Your task to perform on an android device: show emergency info Image 0: 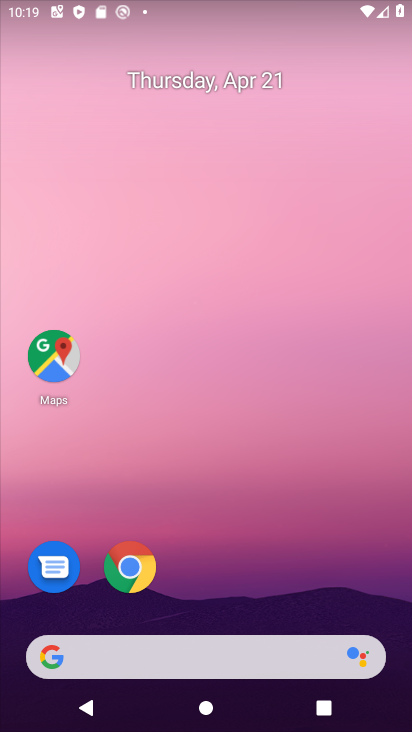
Step 0: click (262, 134)
Your task to perform on an android device: show emergency info Image 1: 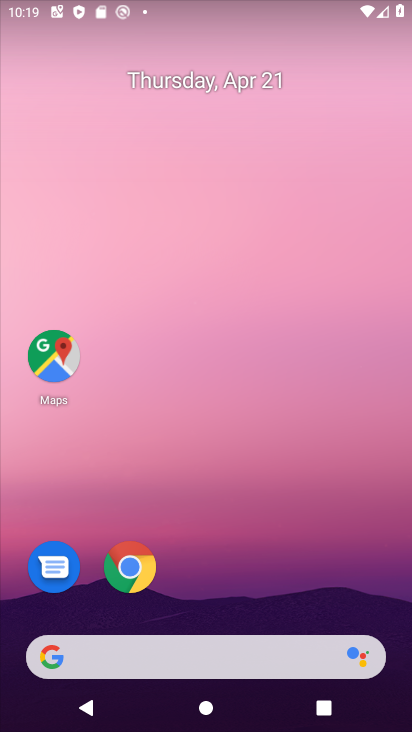
Step 1: drag from (216, 577) to (354, 93)
Your task to perform on an android device: show emergency info Image 2: 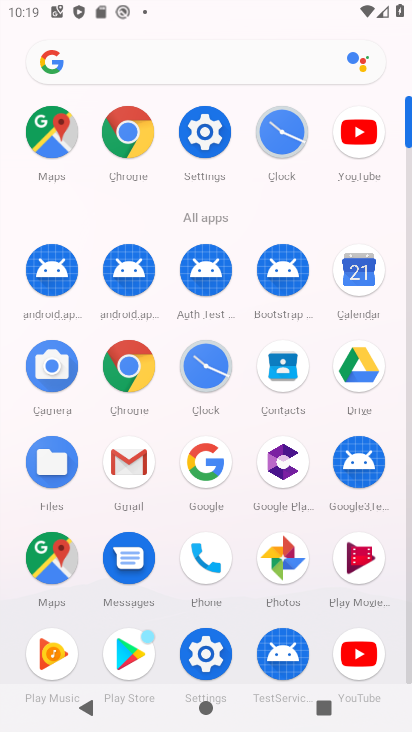
Step 2: click (200, 126)
Your task to perform on an android device: show emergency info Image 3: 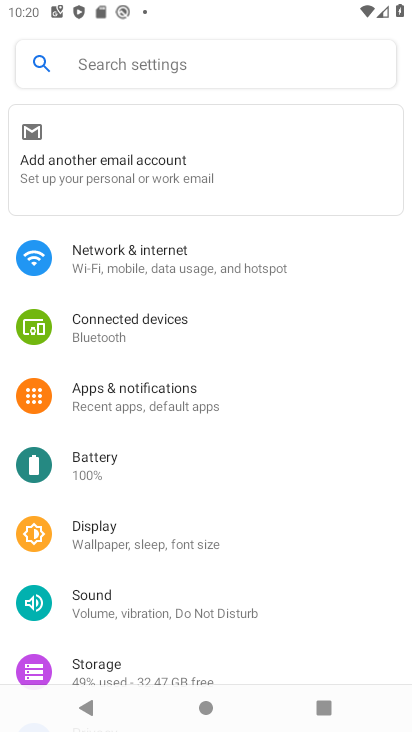
Step 3: drag from (167, 611) to (279, 94)
Your task to perform on an android device: show emergency info Image 4: 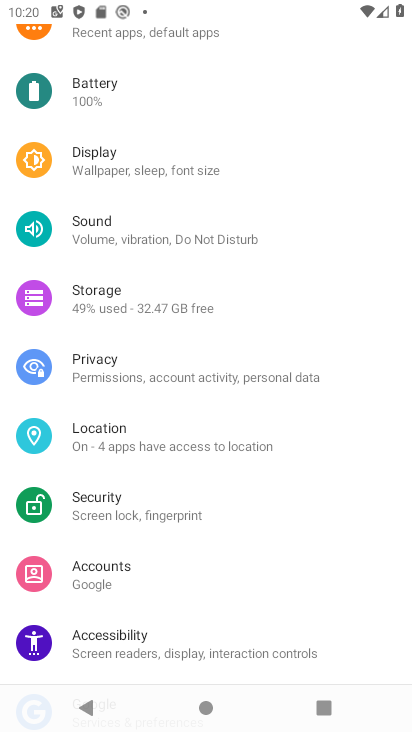
Step 4: drag from (187, 419) to (219, 226)
Your task to perform on an android device: show emergency info Image 5: 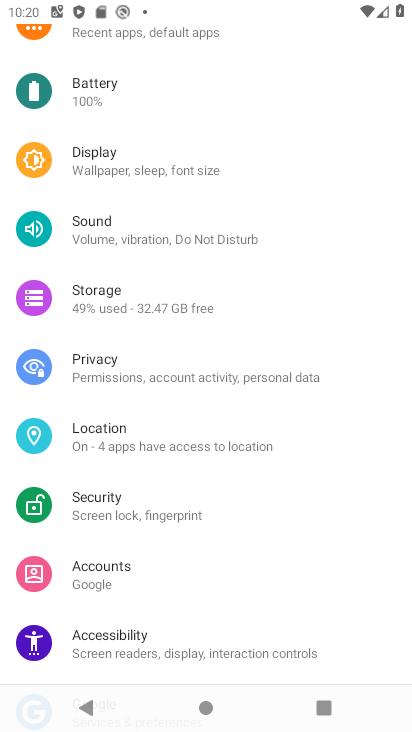
Step 5: drag from (146, 631) to (146, 415)
Your task to perform on an android device: show emergency info Image 6: 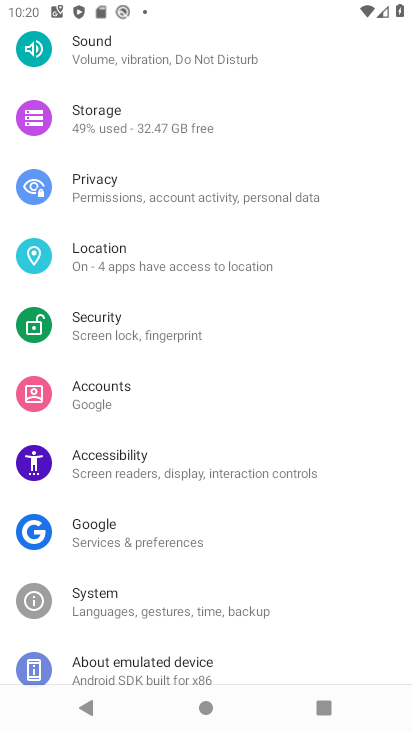
Step 6: click (146, 662)
Your task to perform on an android device: show emergency info Image 7: 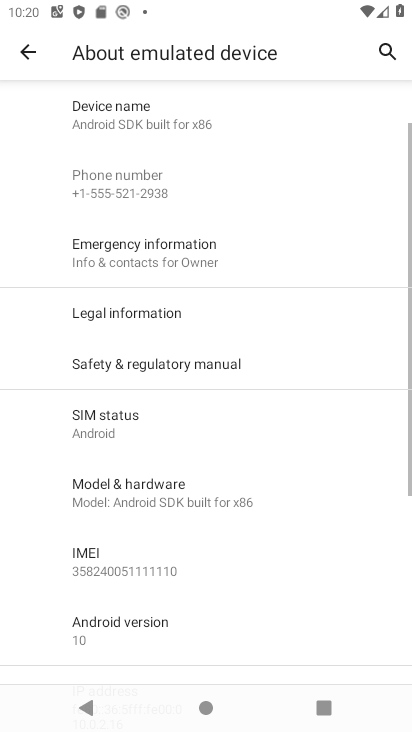
Step 7: click (180, 263)
Your task to perform on an android device: show emergency info Image 8: 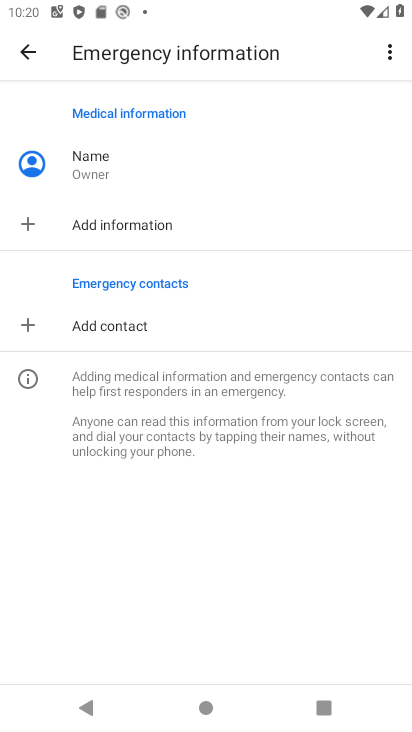
Step 8: task complete